Your task to perform on an android device: turn off sleep mode Image 0: 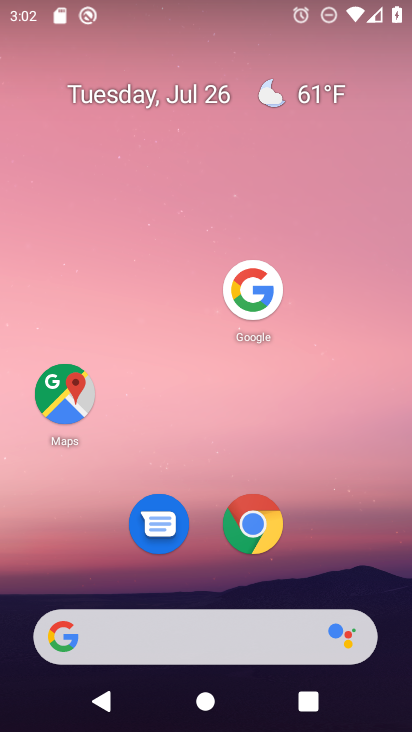
Step 0: press home button
Your task to perform on an android device: turn off sleep mode Image 1: 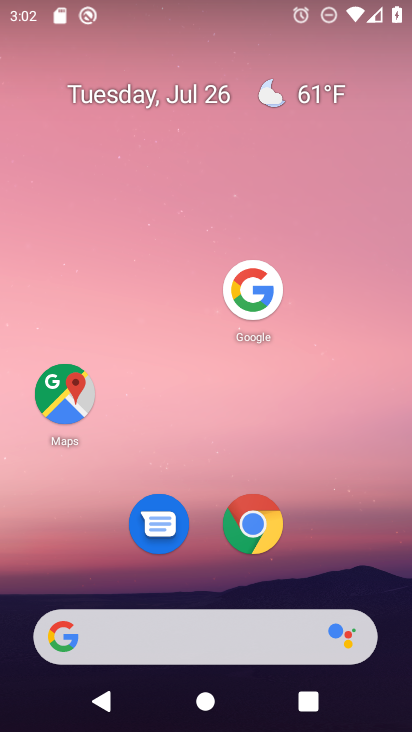
Step 1: drag from (188, 636) to (293, 102)
Your task to perform on an android device: turn off sleep mode Image 2: 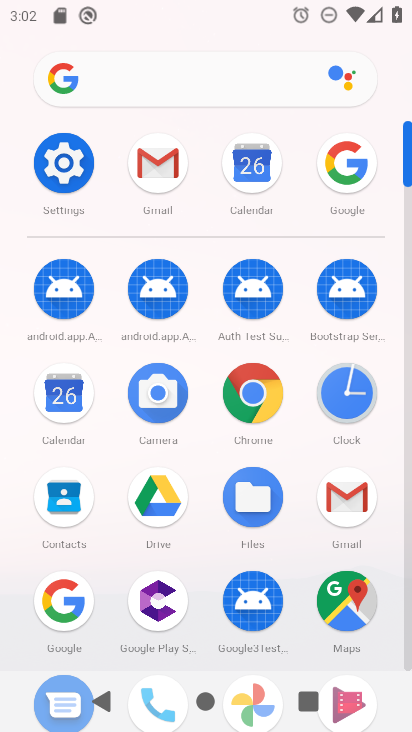
Step 2: click (65, 173)
Your task to perform on an android device: turn off sleep mode Image 3: 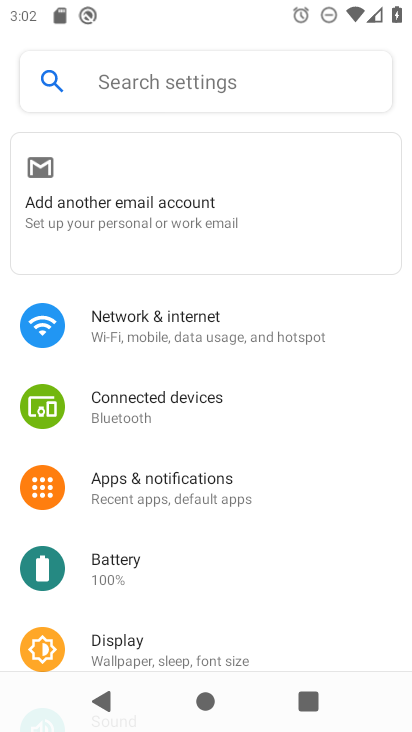
Step 3: drag from (203, 570) to (305, 349)
Your task to perform on an android device: turn off sleep mode Image 4: 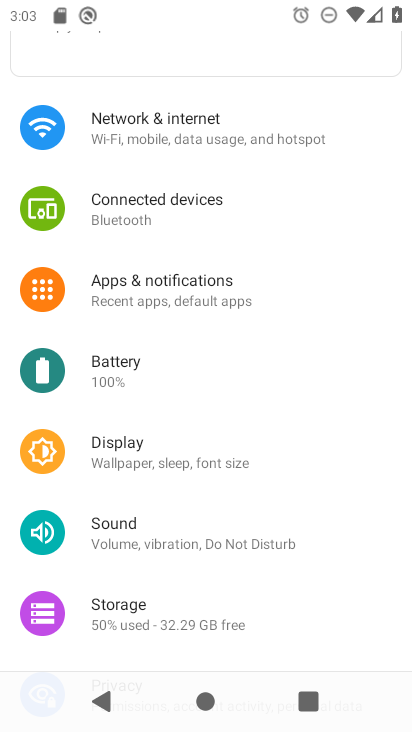
Step 4: click (170, 540)
Your task to perform on an android device: turn off sleep mode Image 5: 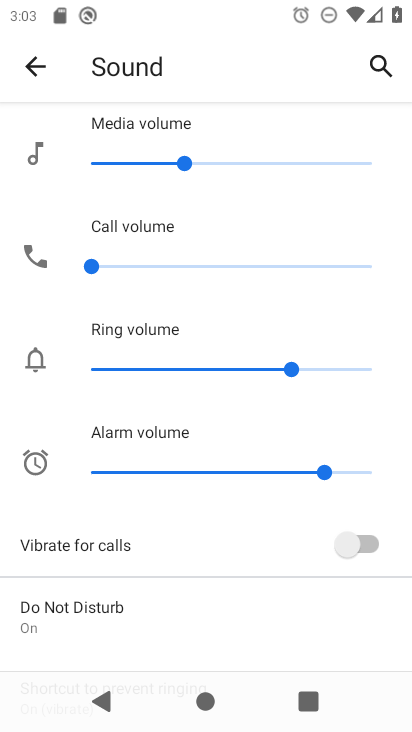
Step 5: task complete